Your task to perform on an android device: open app "Google Chat" (install if not already installed) Image 0: 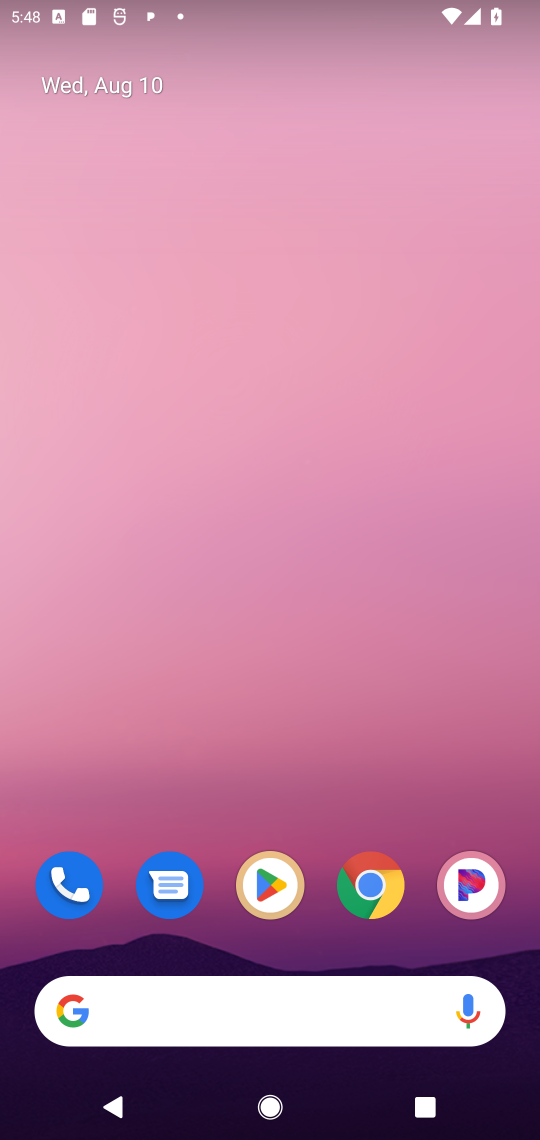
Step 0: click (272, 864)
Your task to perform on an android device: open app "Google Chat" (install if not already installed) Image 1: 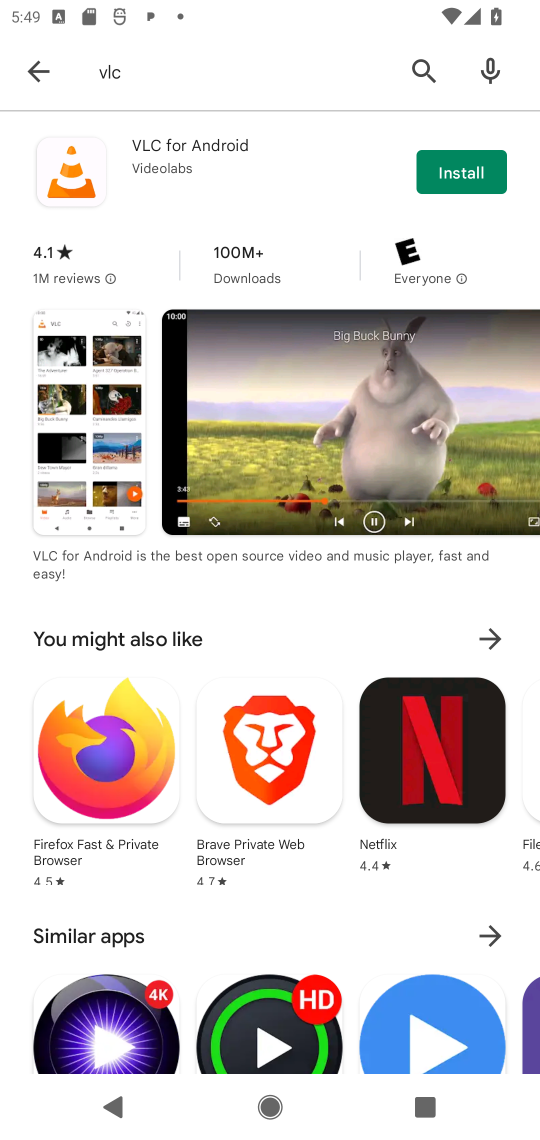
Step 1: click (425, 66)
Your task to perform on an android device: open app "Google Chat" (install if not already installed) Image 2: 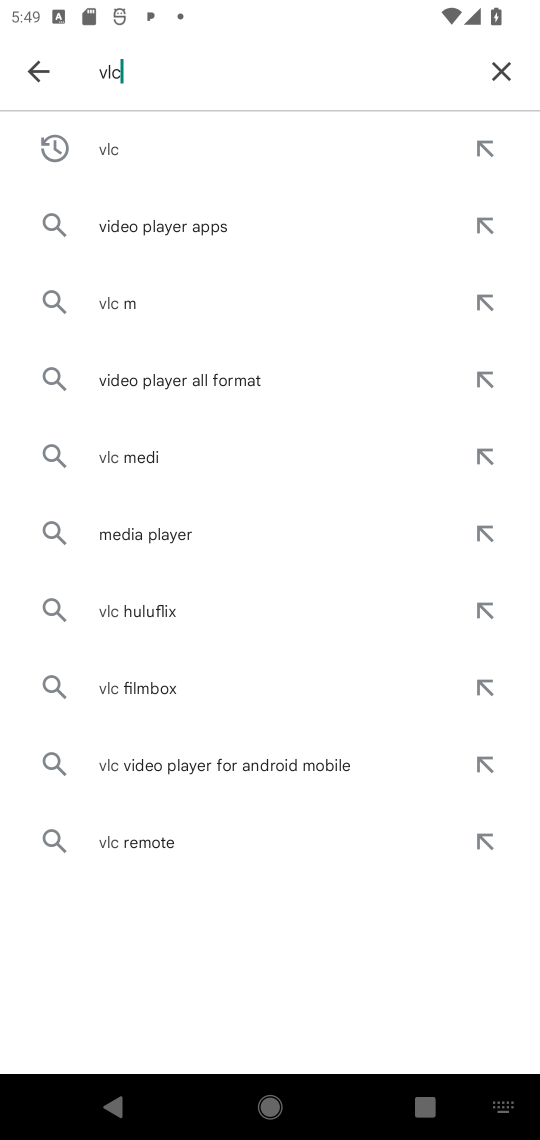
Step 2: click (502, 79)
Your task to perform on an android device: open app "Google Chat" (install if not already installed) Image 3: 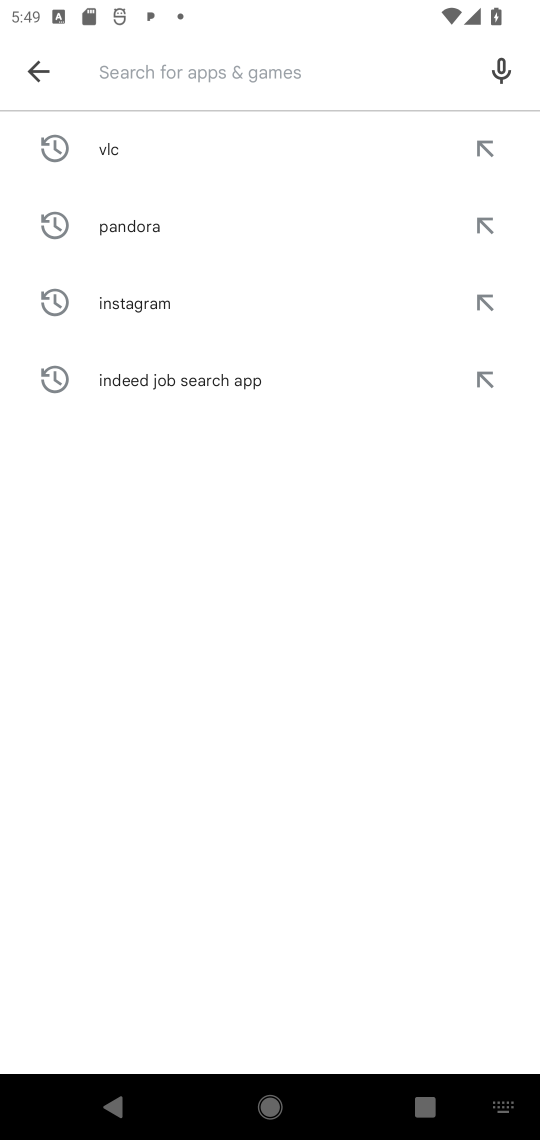
Step 3: click (214, 64)
Your task to perform on an android device: open app "Google Chat" (install if not already installed) Image 4: 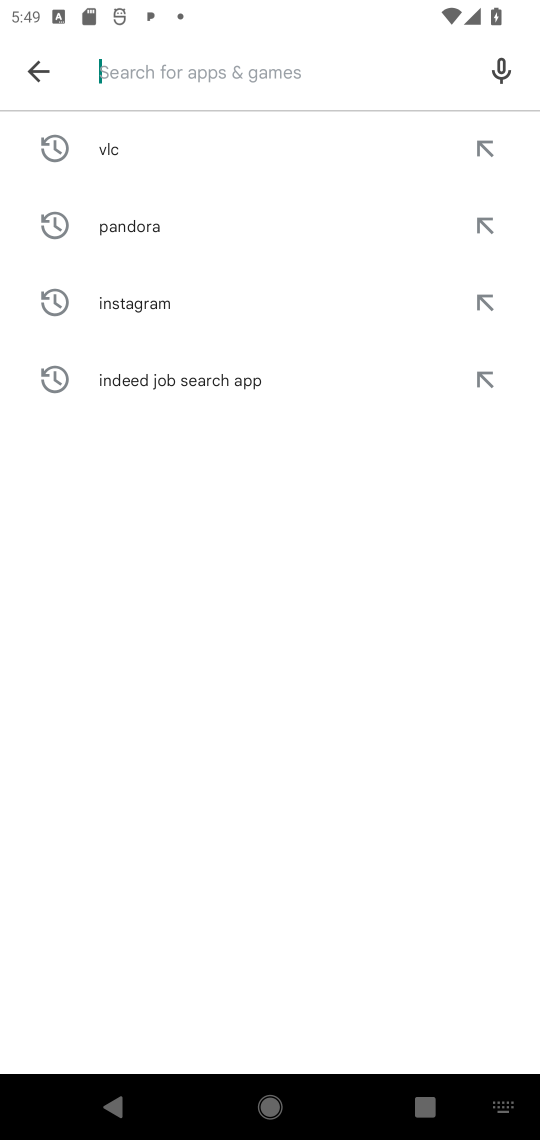
Step 4: type "google chat"
Your task to perform on an android device: open app "Google Chat" (install if not already installed) Image 5: 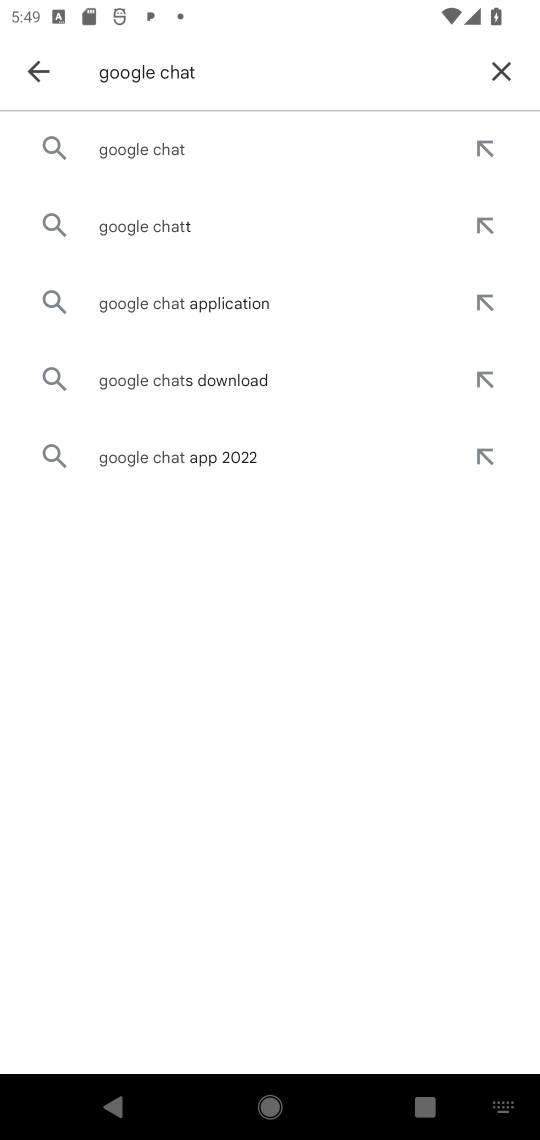
Step 5: click (203, 136)
Your task to perform on an android device: open app "Google Chat" (install if not already installed) Image 6: 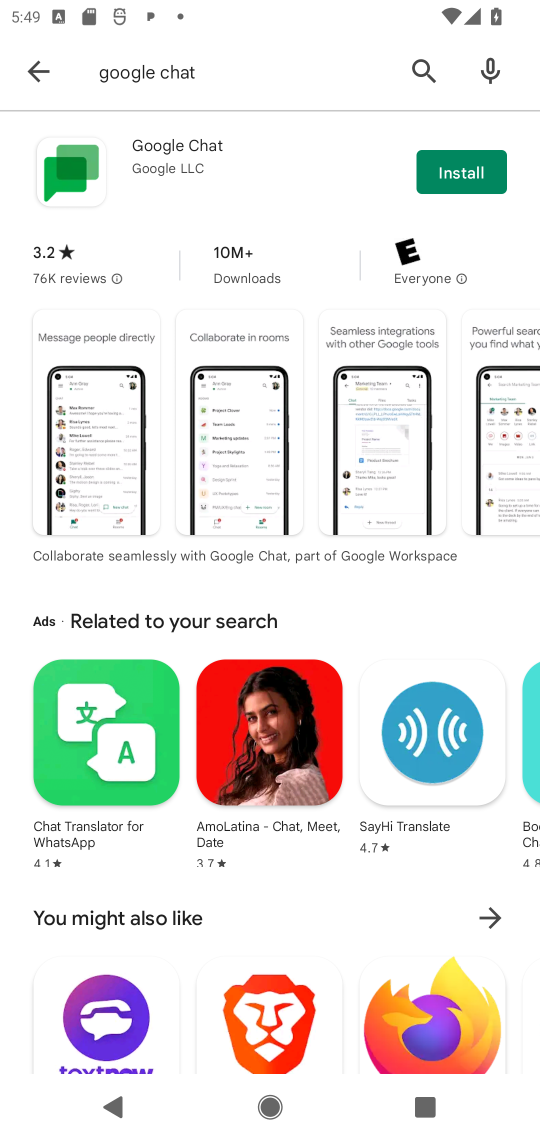
Step 6: click (462, 174)
Your task to perform on an android device: open app "Google Chat" (install if not already installed) Image 7: 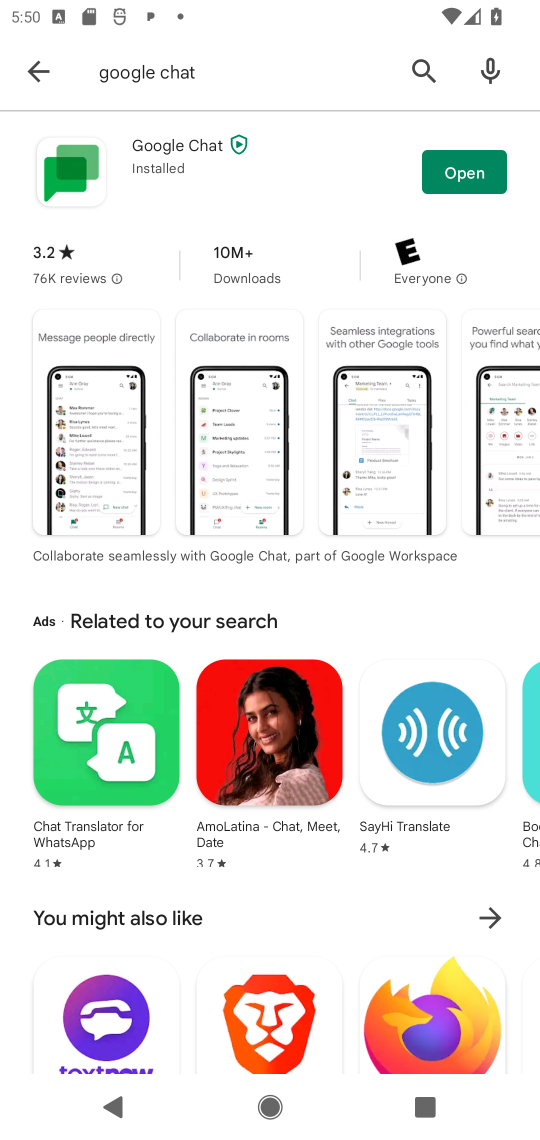
Step 7: click (462, 174)
Your task to perform on an android device: open app "Google Chat" (install if not already installed) Image 8: 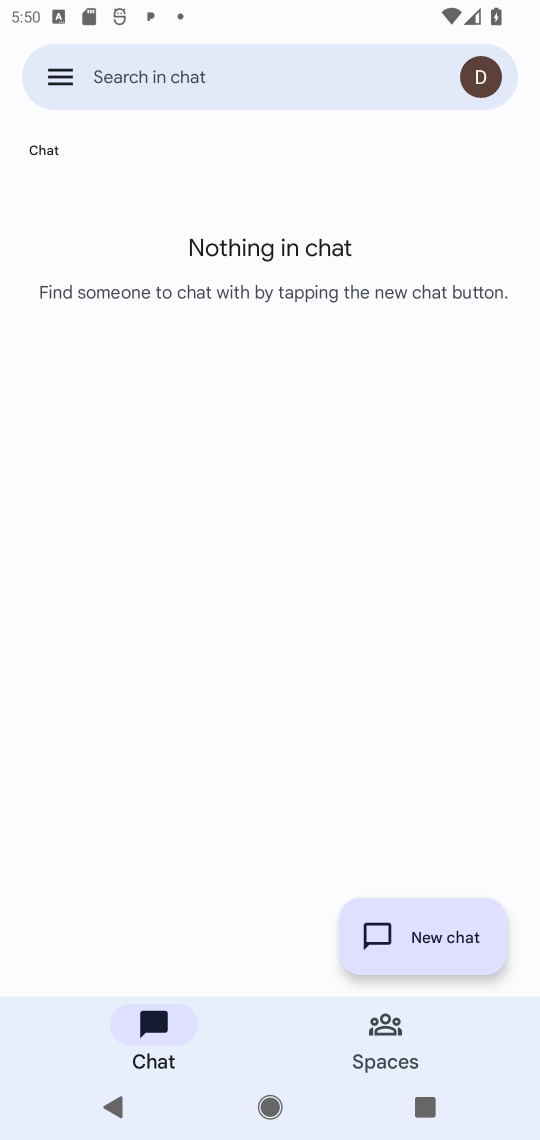
Step 8: task complete